Your task to perform on an android device: turn on sleep mode Image 0: 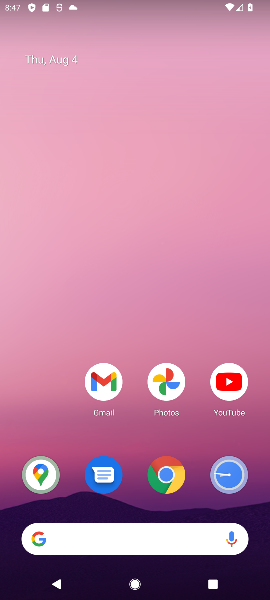
Step 0: drag from (132, 510) to (151, 186)
Your task to perform on an android device: turn on sleep mode Image 1: 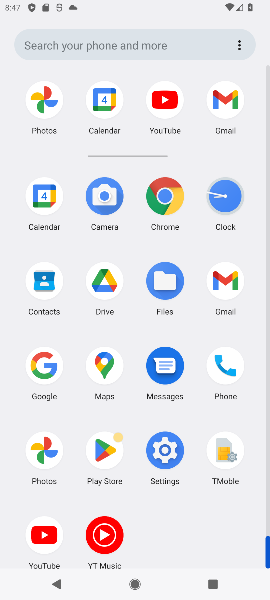
Step 1: drag from (136, 461) to (144, 124)
Your task to perform on an android device: turn on sleep mode Image 2: 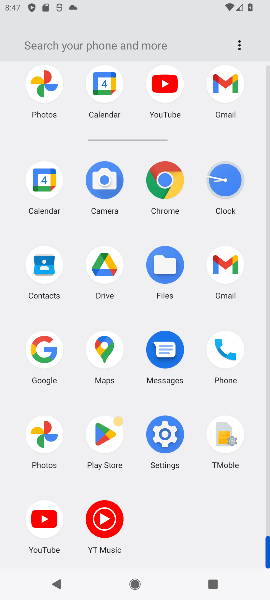
Step 2: click (150, 435)
Your task to perform on an android device: turn on sleep mode Image 3: 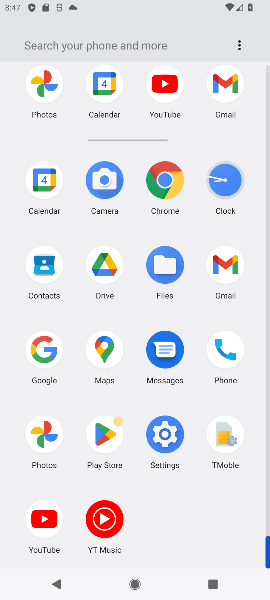
Step 3: click (159, 436)
Your task to perform on an android device: turn on sleep mode Image 4: 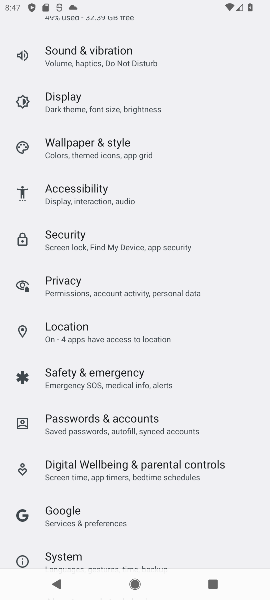
Step 4: drag from (149, 468) to (150, 263)
Your task to perform on an android device: turn on sleep mode Image 5: 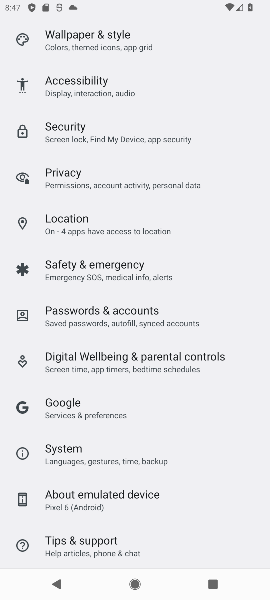
Step 5: drag from (118, 382) to (186, 173)
Your task to perform on an android device: turn on sleep mode Image 6: 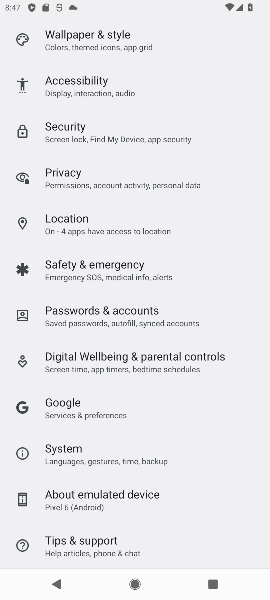
Step 6: drag from (145, 75) to (132, 596)
Your task to perform on an android device: turn on sleep mode Image 7: 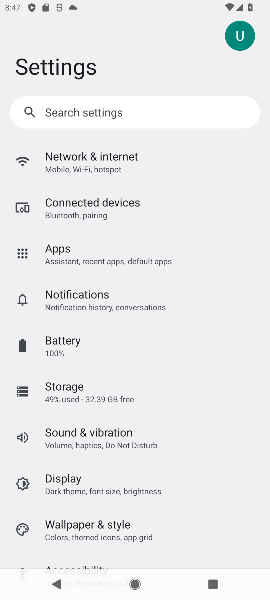
Step 7: click (100, 481)
Your task to perform on an android device: turn on sleep mode Image 8: 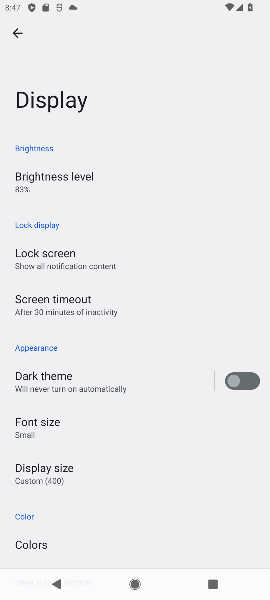
Step 8: drag from (117, 468) to (154, 248)
Your task to perform on an android device: turn on sleep mode Image 9: 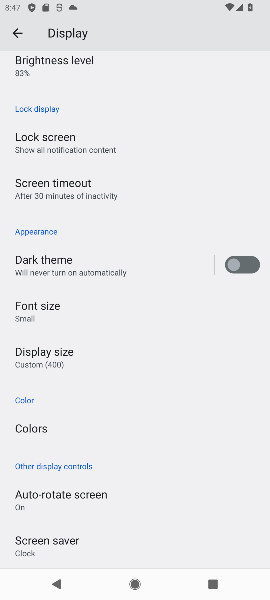
Step 9: drag from (150, 110) to (133, 591)
Your task to perform on an android device: turn on sleep mode Image 10: 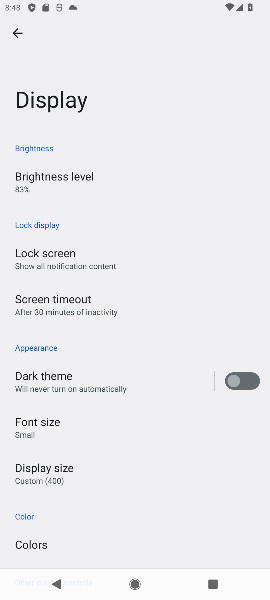
Step 10: drag from (130, 481) to (188, 158)
Your task to perform on an android device: turn on sleep mode Image 11: 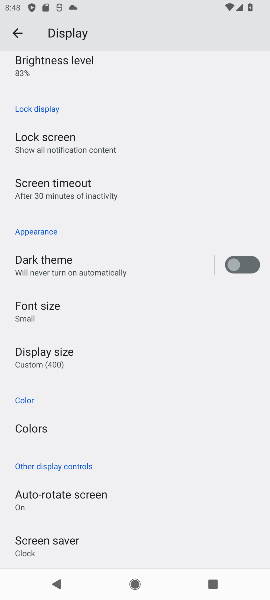
Step 11: drag from (132, 533) to (167, 202)
Your task to perform on an android device: turn on sleep mode Image 12: 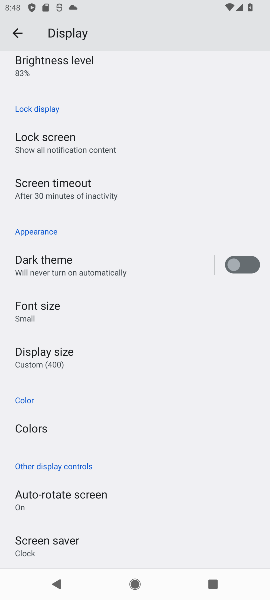
Step 12: click (127, 193)
Your task to perform on an android device: turn on sleep mode Image 13: 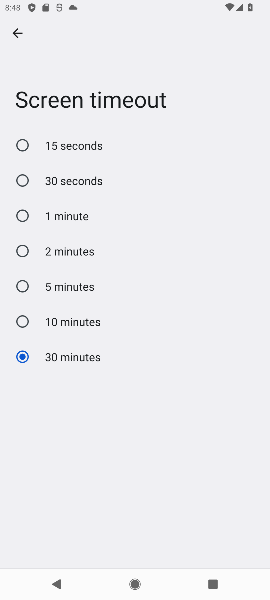
Step 13: task complete